Your task to perform on an android device: Search for pizza restaurants on Maps Image 0: 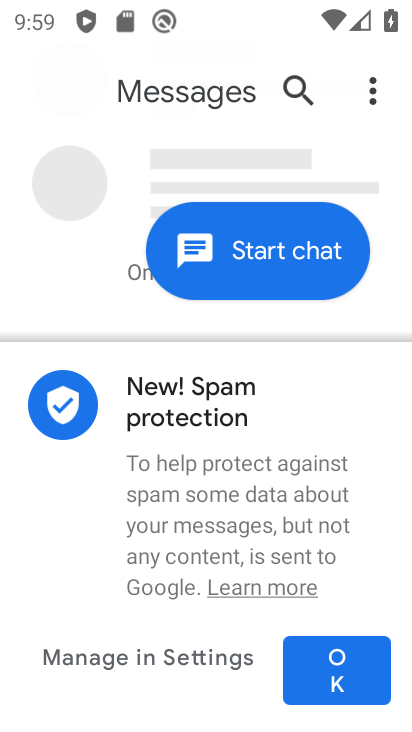
Step 0: press home button
Your task to perform on an android device: Search for pizza restaurants on Maps Image 1: 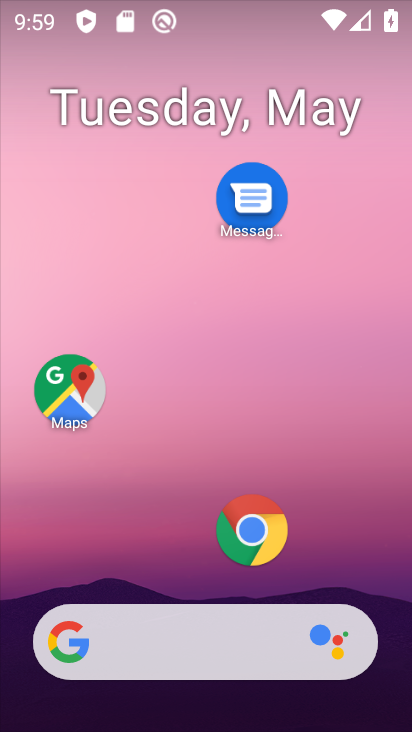
Step 1: drag from (153, 566) to (134, 45)
Your task to perform on an android device: Search for pizza restaurants on Maps Image 2: 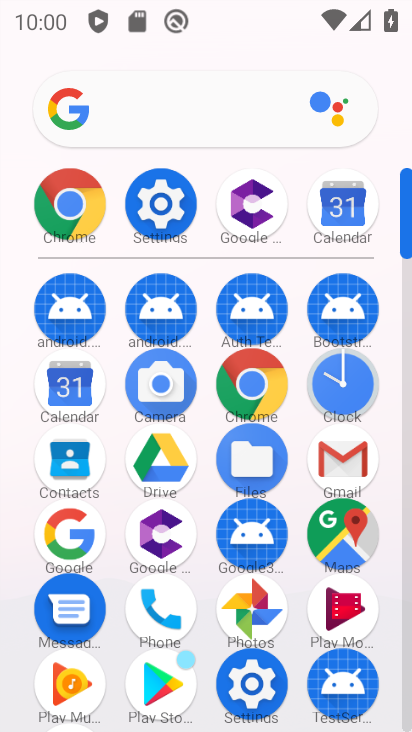
Step 2: click (337, 572)
Your task to perform on an android device: Search for pizza restaurants on Maps Image 3: 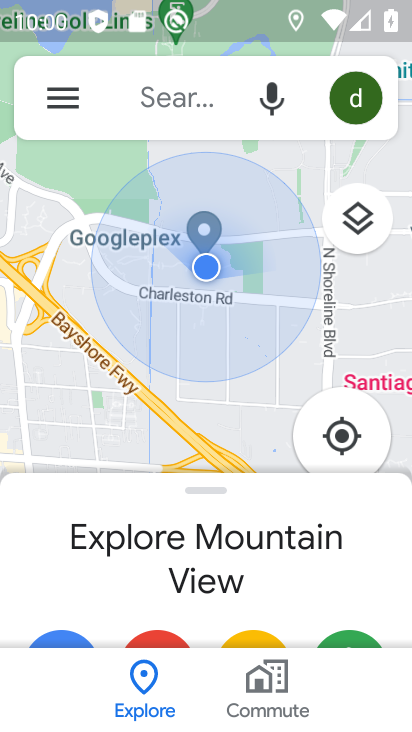
Step 3: click (155, 105)
Your task to perform on an android device: Search for pizza restaurants on Maps Image 4: 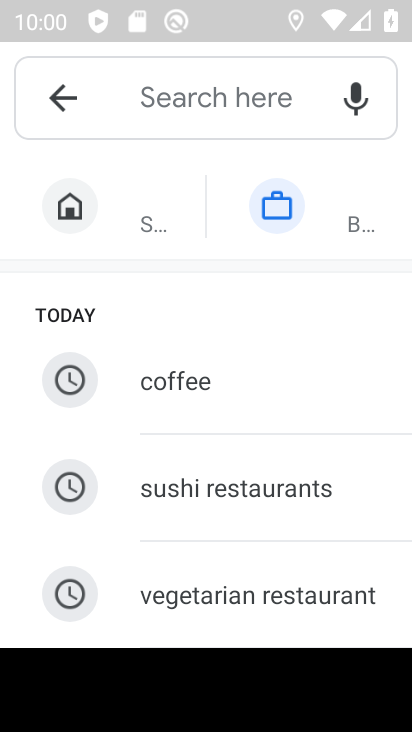
Step 4: type "pizza restaurants"
Your task to perform on an android device: Search for pizza restaurants on Maps Image 5: 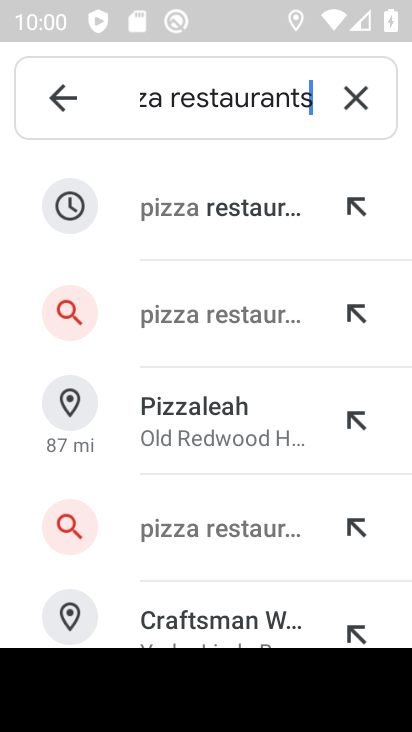
Step 5: click (193, 206)
Your task to perform on an android device: Search for pizza restaurants on Maps Image 6: 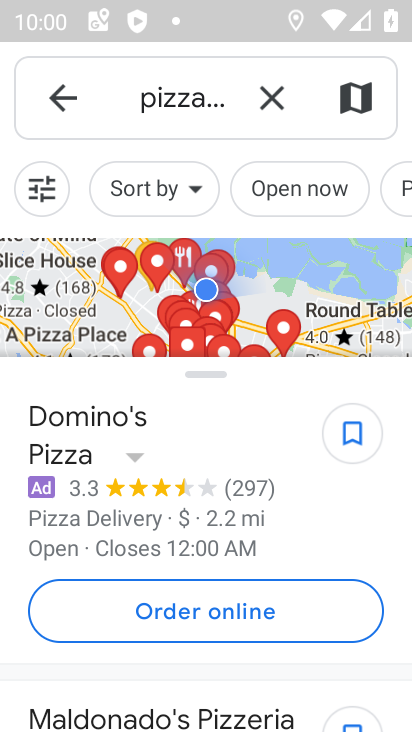
Step 6: task complete